Your task to perform on an android device: When is my next appointment? Image 0: 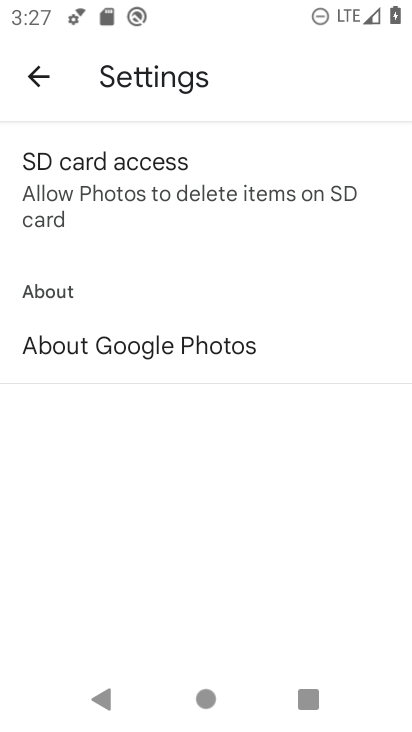
Step 0: press home button
Your task to perform on an android device: When is my next appointment? Image 1: 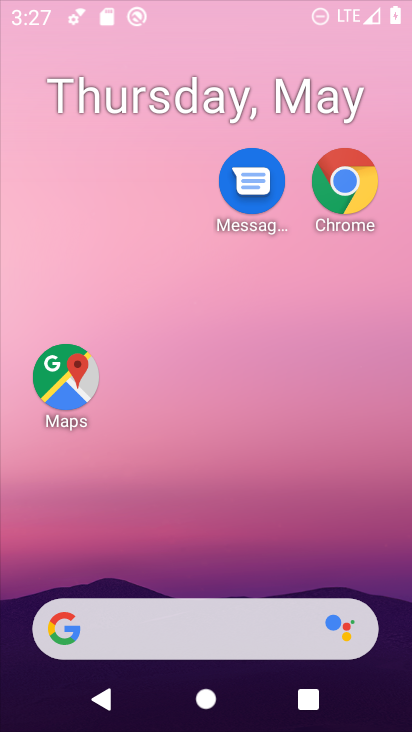
Step 1: drag from (201, 563) to (226, 114)
Your task to perform on an android device: When is my next appointment? Image 2: 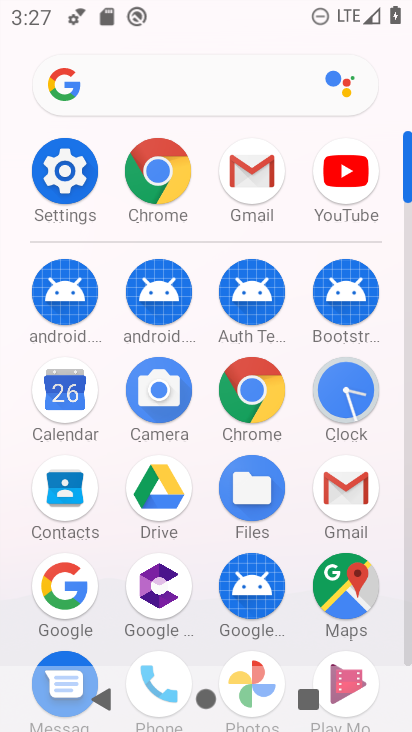
Step 2: click (58, 388)
Your task to perform on an android device: When is my next appointment? Image 3: 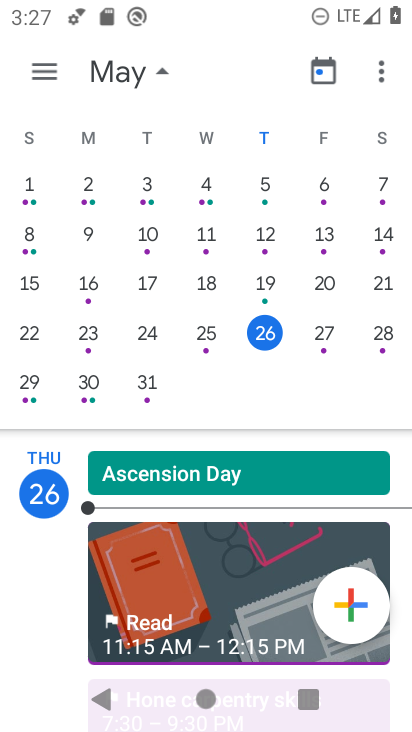
Step 3: click (312, 343)
Your task to perform on an android device: When is my next appointment? Image 4: 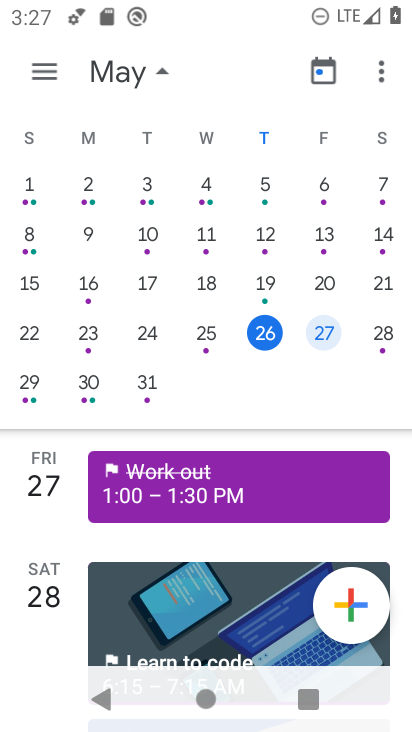
Step 4: task complete